Your task to perform on an android device: check android version Image 0: 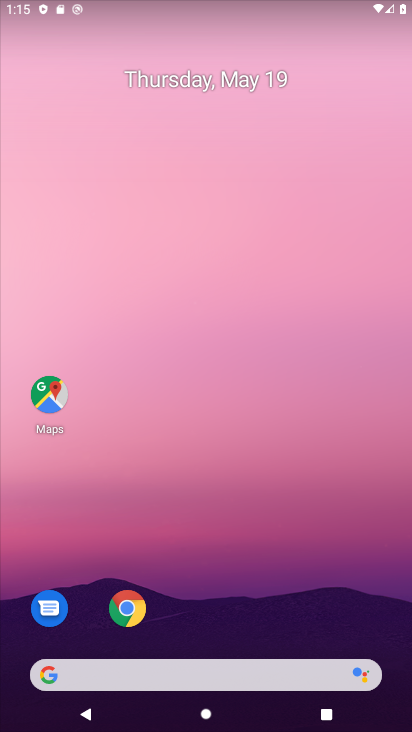
Step 0: drag from (289, 615) to (248, 160)
Your task to perform on an android device: check android version Image 1: 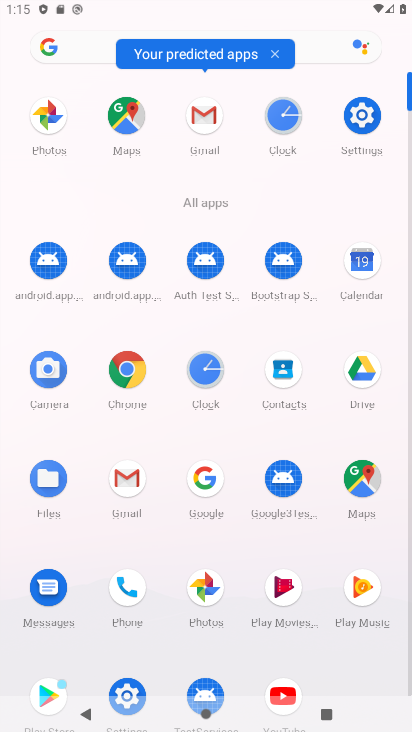
Step 1: click (373, 120)
Your task to perform on an android device: check android version Image 2: 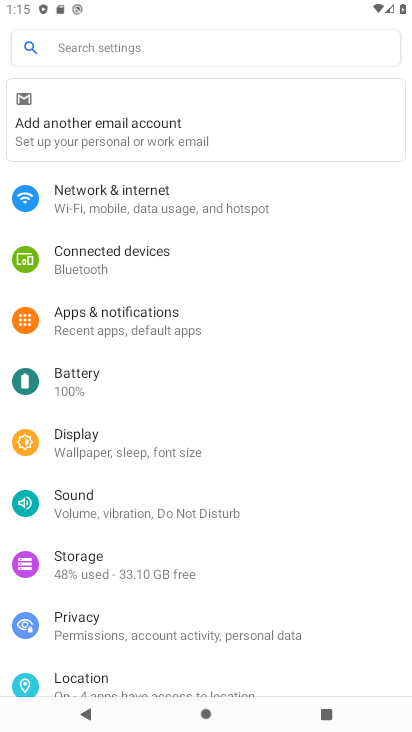
Step 2: drag from (145, 564) to (201, 31)
Your task to perform on an android device: check android version Image 3: 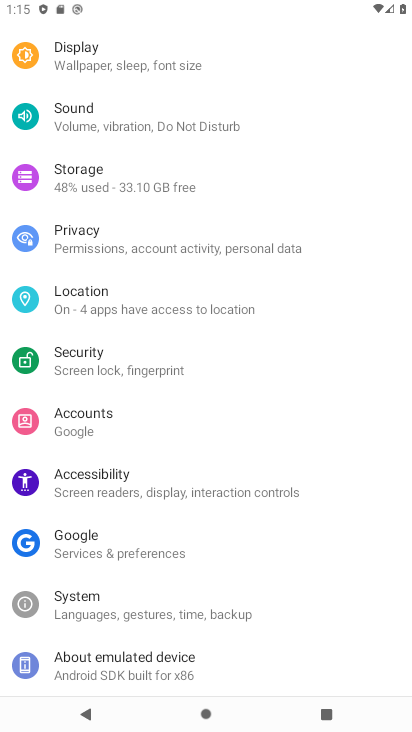
Step 3: click (174, 659)
Your task to perform on an android device: check android version Image 4: 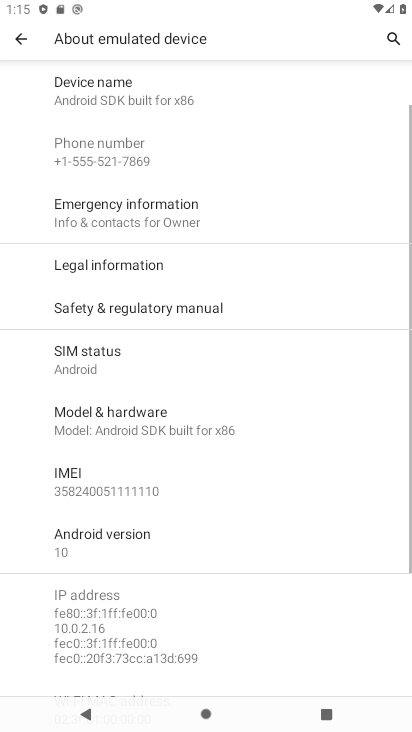
Step 4: click (167, 540)
Your task to perform on an android device: check android version Image 5: 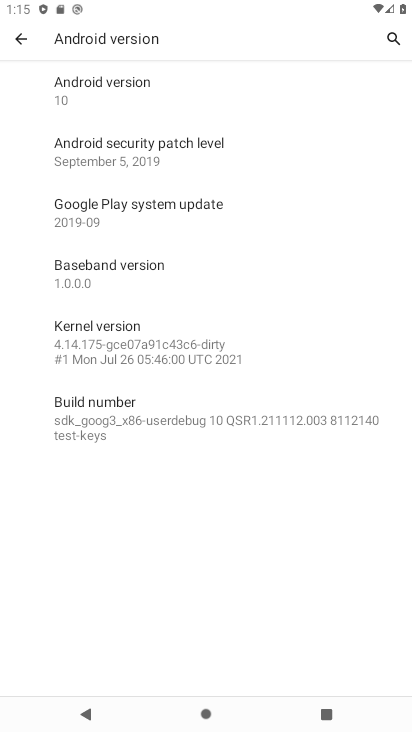
Step 5: task complete